Your task to perform on an android device: turn vacation reply on in the gmail app Image 0: 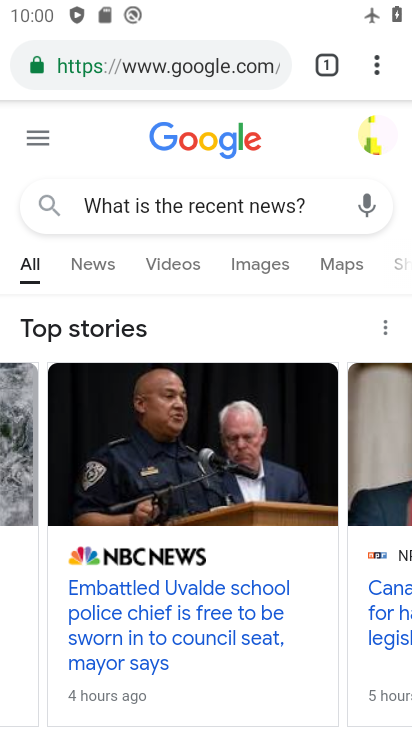
Step 0: press back button
Your task to perform on an android device: turn vacation reply on in the gmail app Image 1: 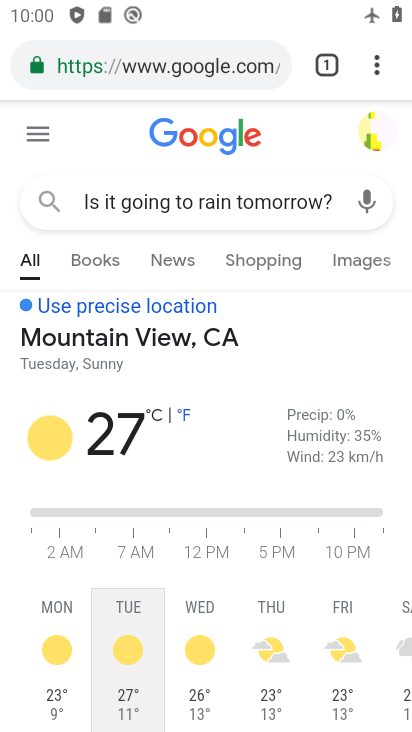
Step 1: press home button
Your task to perform on an android device: turn vacation reply on in the gmail app Image 2: 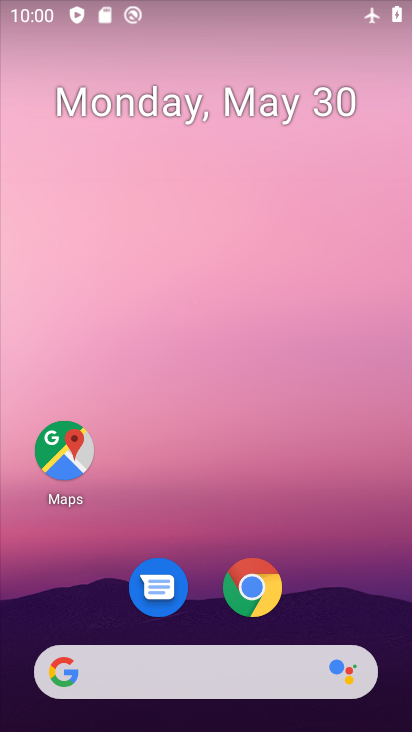
Step 2: drag from (372, 593) to (257, 66)
Your task to perform on an android device: turn vacation reply on in the gmail app Image 3: 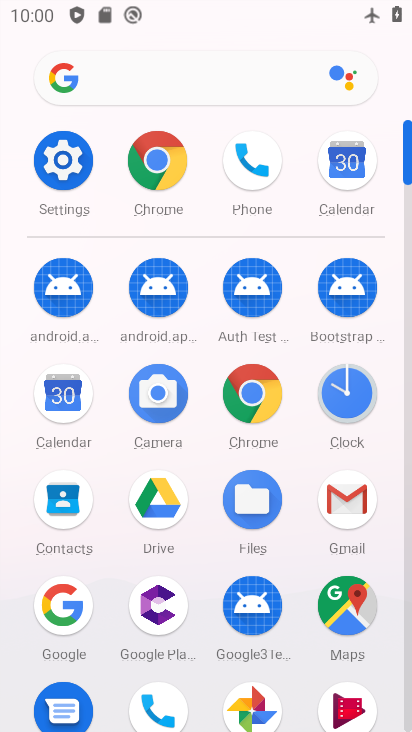
Step 3: click (345, 496)
Your task to perform on an android device: turn vacation reply on in the gmail app Image 4: 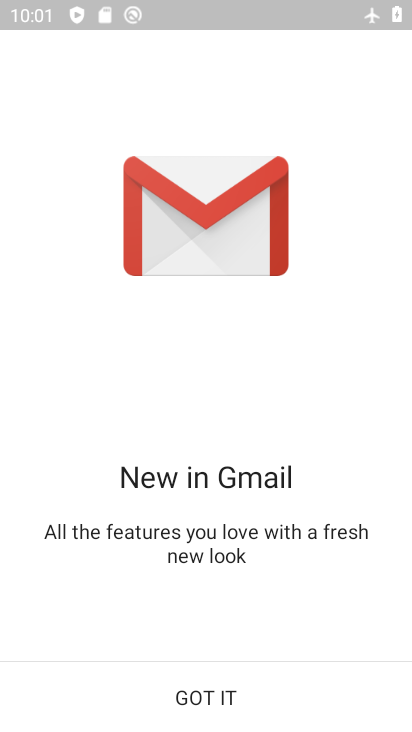
Step 4: click (215, 689)
Your task to perform on an android device: turn vacation reply on in the gmail app Image 5: 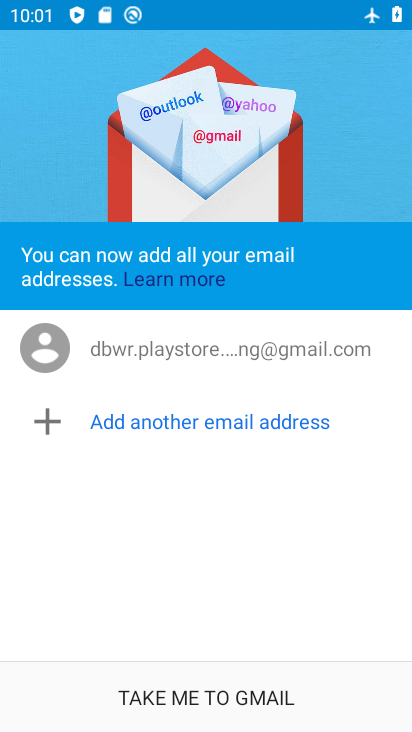
Step 5: click (215, 689)
Your task to perform on an android device: turn vacation reply on in the gmail app Image 6: 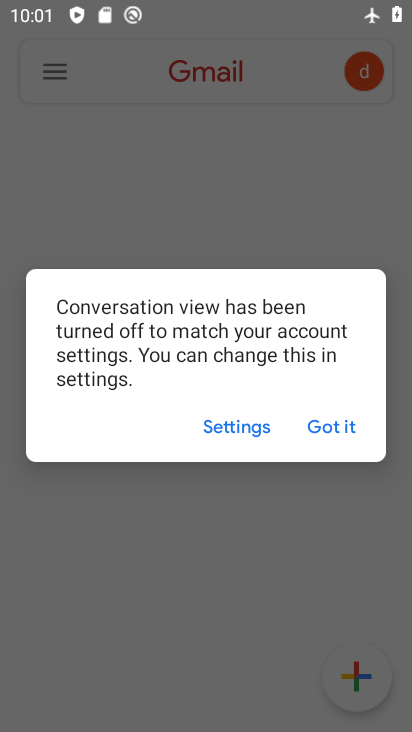
Step 6: click (325, 418)
Your task to perform on an android device: turn vacation reply on in the gmail app Image 7: 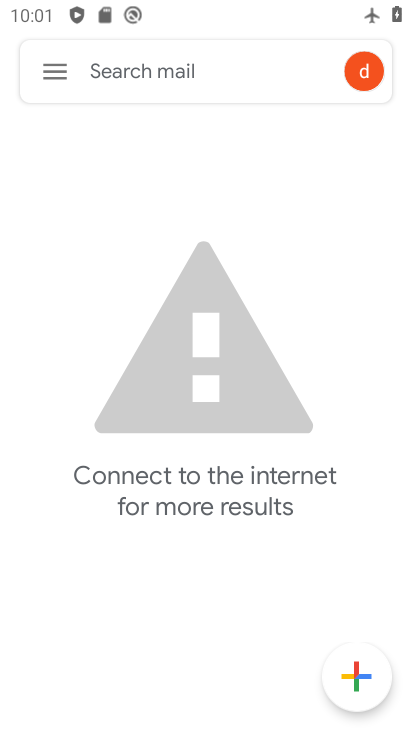
Step 7: click (51, 66)
Your task to perform on an android device: turn vacation reply on in the gmail app Image 8: 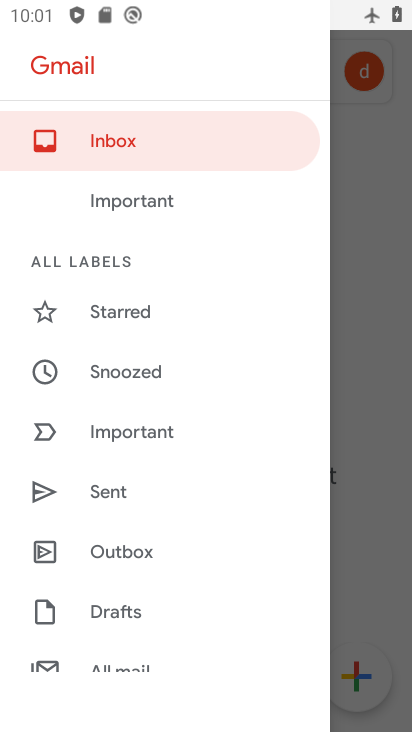
Step 8: click (221, 155)
Your task to perform on an android device: turn vacation reply on in the gmail app Image 9: 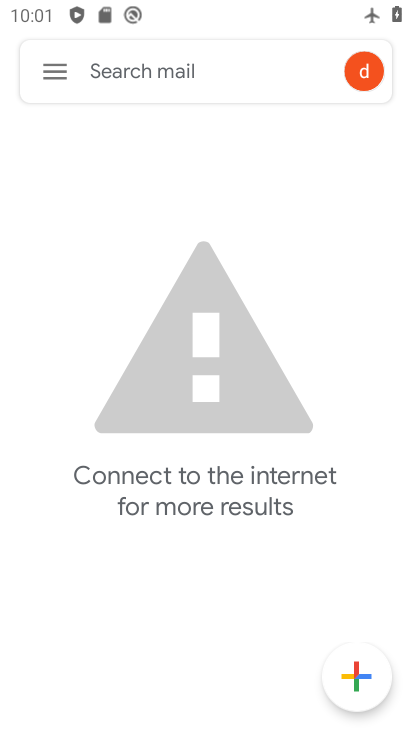
Step 9: drag from (171, 592) to (59, 71)
Your task to perform on an android device: turn vacation reply on in the gmail app Image 10: 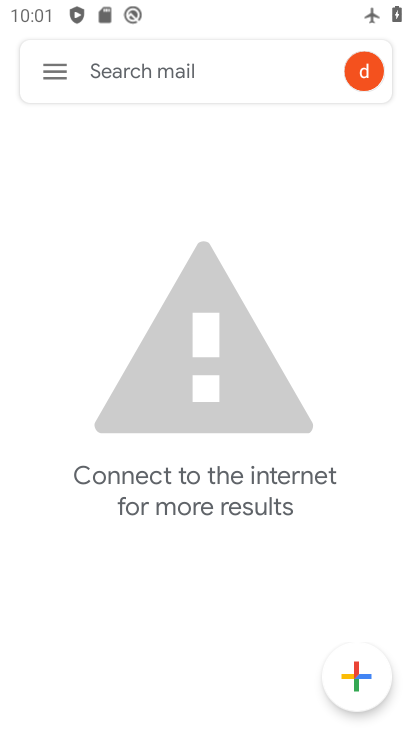
Step 10: click (59, 71)
Your task to perform on an android device: turn vacation reply on in the gmail app Image 11: 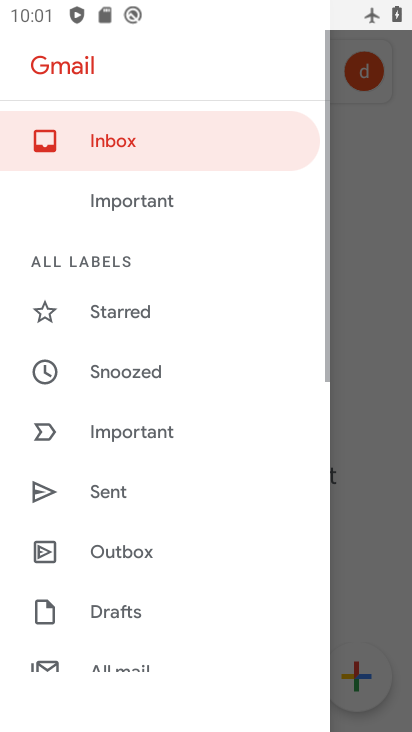
Step 11: drag from (211, 652) to (228, 180)
Your task to perform on an android device: turn vacation reply on in the gmail app Image 12: 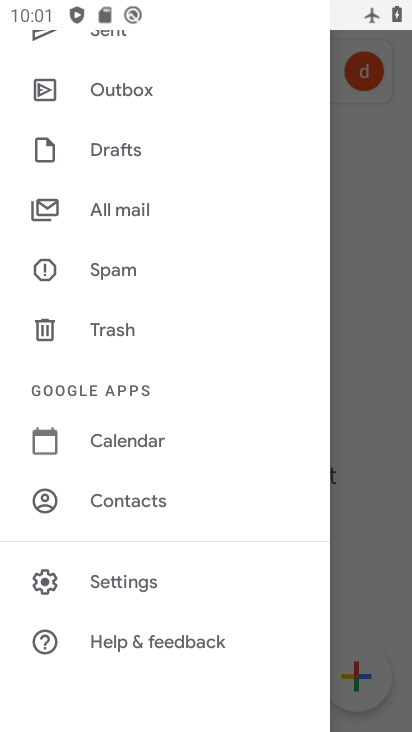
Step 12: click (147, 576)
Your task to perform on an android device: turn vacation reply on in the gmail app Image 13: 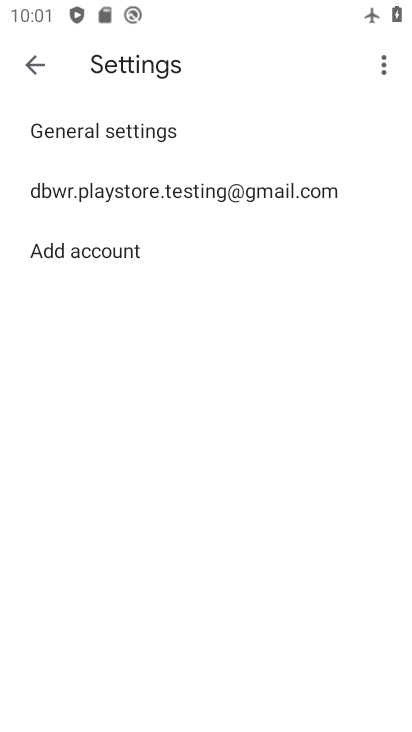
Step 13: click (208, 193)
Your task to perform on an android device: turn vacation reply on in the gmail app Image 14: 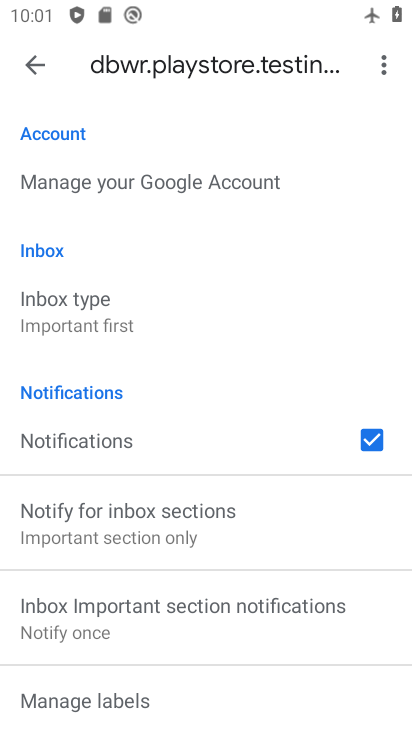
Step 14: drag from (210, 630) to (210, 192)
Your task to perform on an android device: turn vacation reply on in the gmail app Image 15: 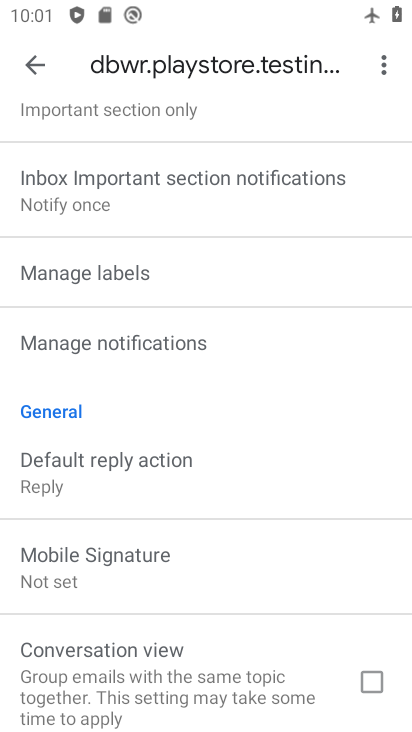
Step 15: drag from (201, 596) to (252, 208)
Your task to perform on an android device: turn vacation reply on in the gmail app Image 16: 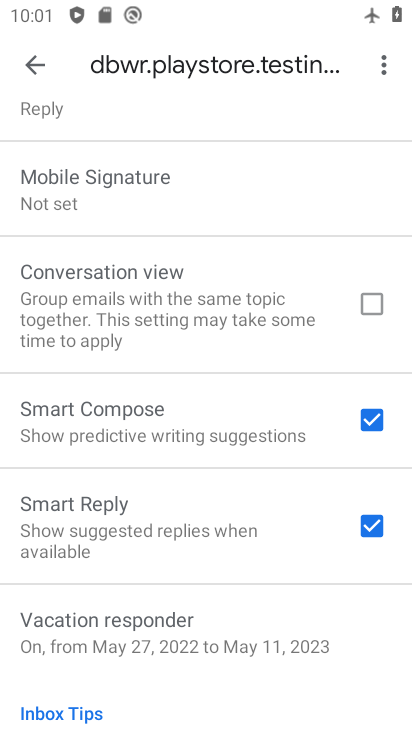
Step 16: drag from (242, 593) to (234, 223)
Your task to perform on an android device: turn vacation reply on in the gmail app Image 17: 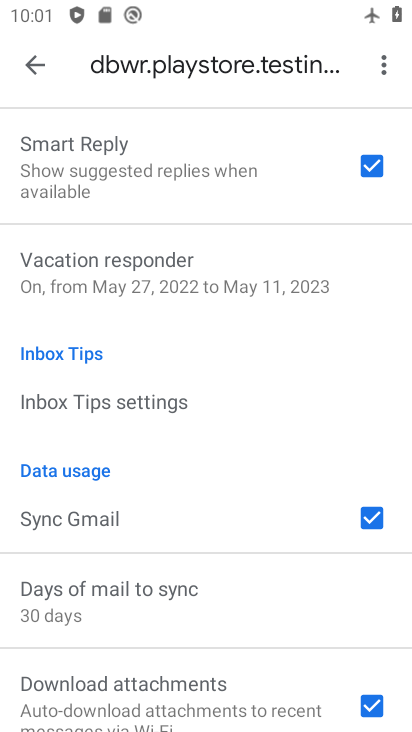
Step 17: click (186, 267)
Your task to perform on an android device: turn vacation reply on in the gmail app Image 18: 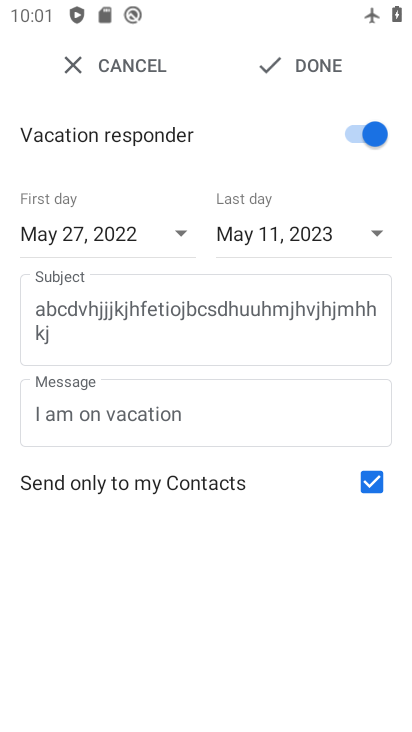
Step 18: click (300, 61)
Your task to perform on an android device: turn vacation reply on in the gmail app Image 19: 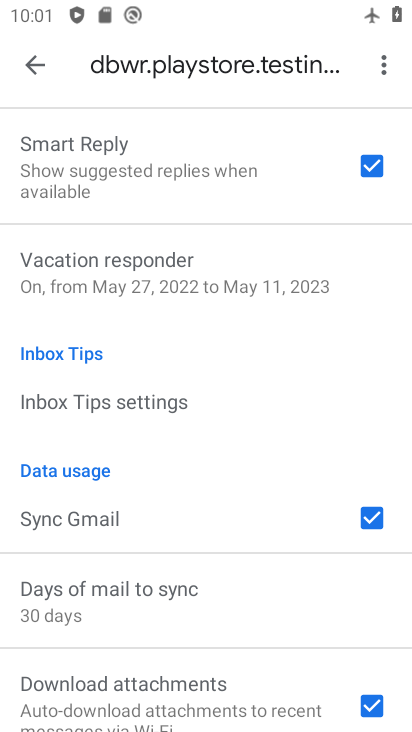
Step 19: task complete